Your task to perform on an android device: toggle wifi Image 0: 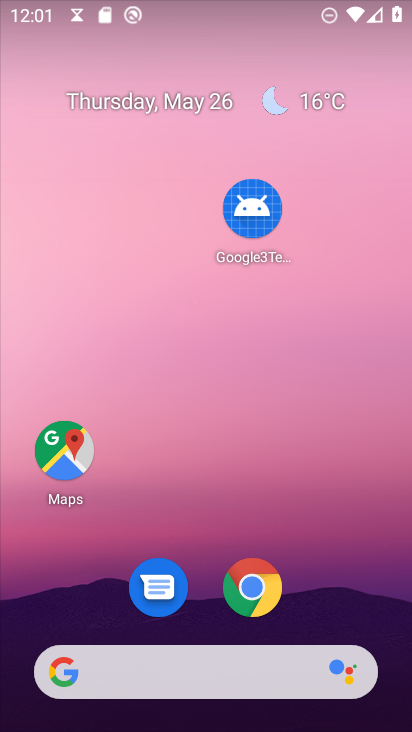
Step 0: press home button
Your task to perform on an android device: toggle wifi Image 1: 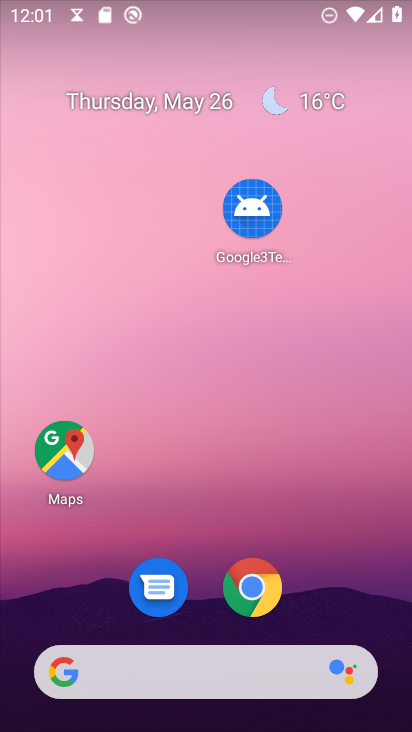
Step 1: drag from (199, 660) to (173, 188)
Your task to perform on an android device: toggle wifi Image 2: 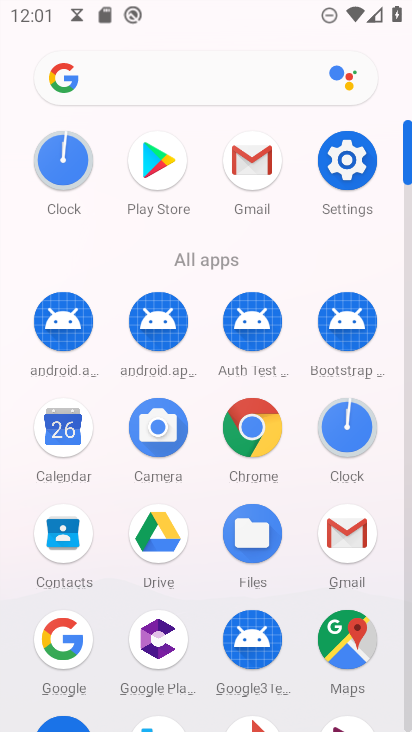
Step 2: click (340, 182)
Your task to perform on an android device: toggle wifi Image 3: 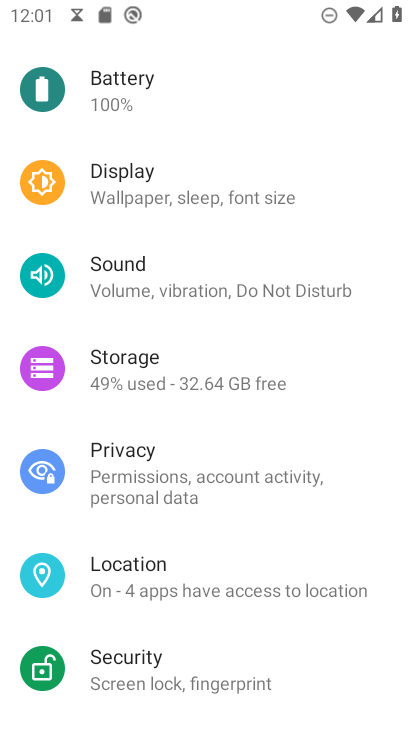
Step 3: drag from (145, 163) to (180, 669)
Your task to perform on an android device: toggle wifi Image 4: 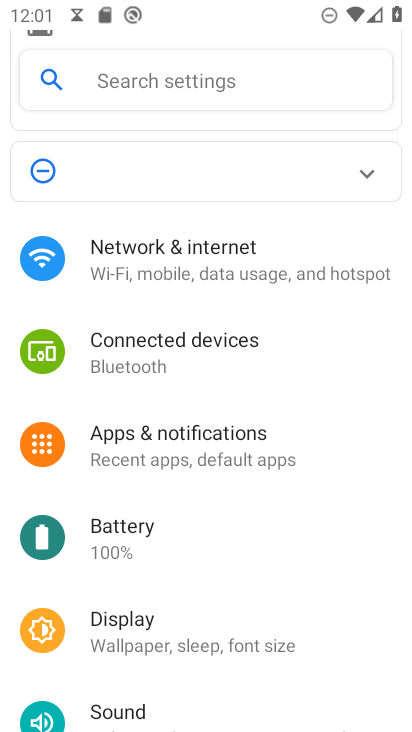
Step 4: click (175, 253)
Your task to perform on an android device: toggle wifi Image 5: 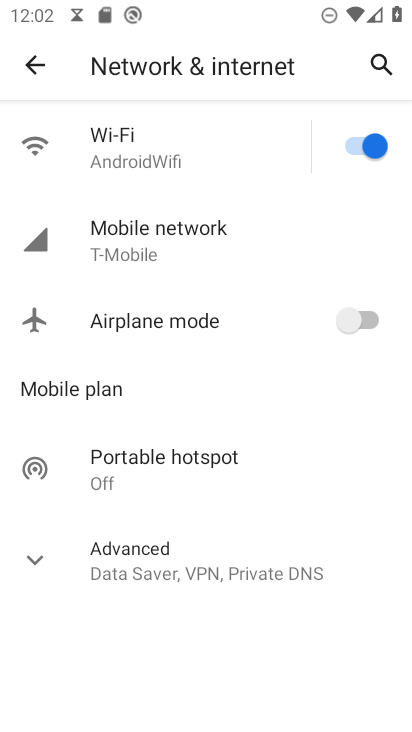
Step 5: click (362, 149)
Your task to perform on an android device: toggle wifi Image 6: 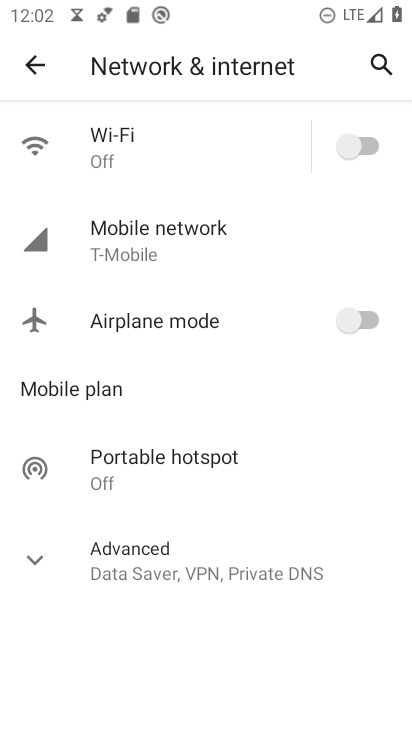
Step 6: task complete